Your task to perform on an android device: refresh tabs in the chrome app Image 0: 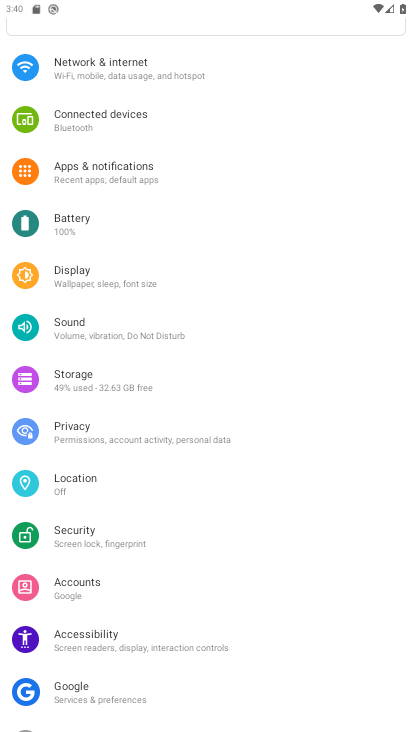
Step 0: press home button
Your task to perform on an android device: refresh tabs in the chrome app Image 1: 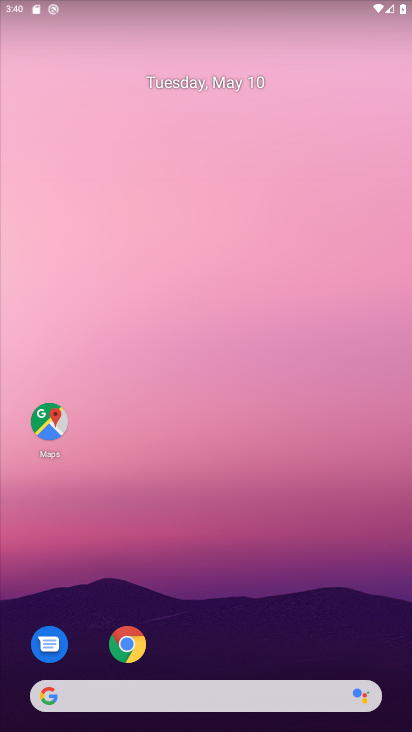
Step 1: click (124, 639)
Your task to perform on an android device: refresh tabs in the chrome app Image 2: 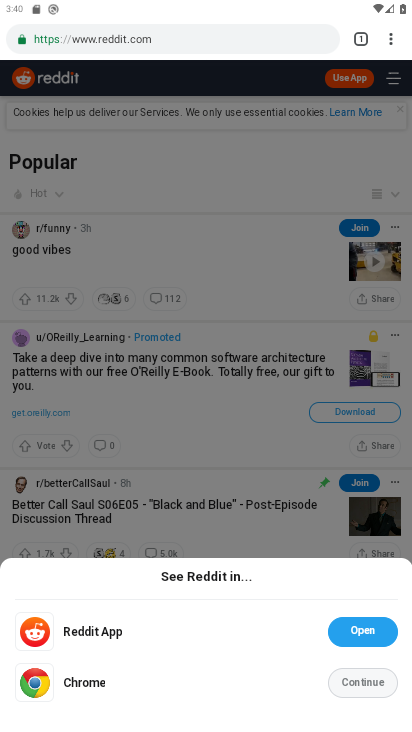
Step 2: click (371, 679)
Your task to perform on an android device: refresh tabs in the chrome app Image 3: 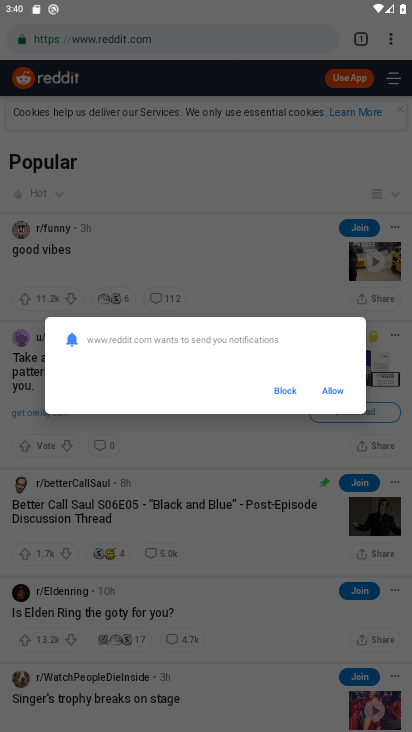
Step 3: click (329, 384)
Your task to perform on an android device: refresh tabs in the chrome app Image 4: 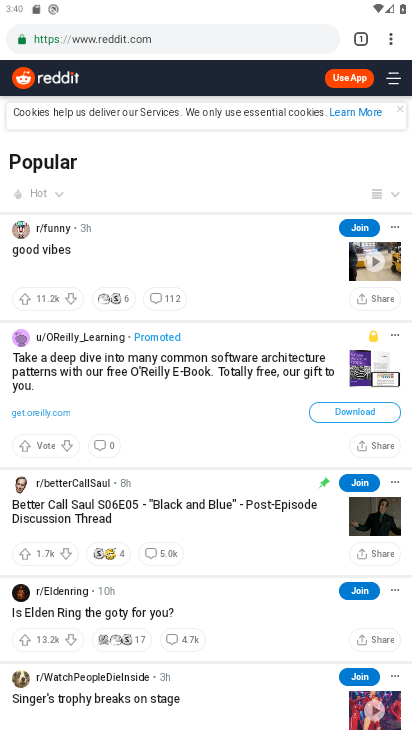
Step 4: click (388, 35)
Your task to perform on an android device: refresh tabs in the chrome app Image 5: 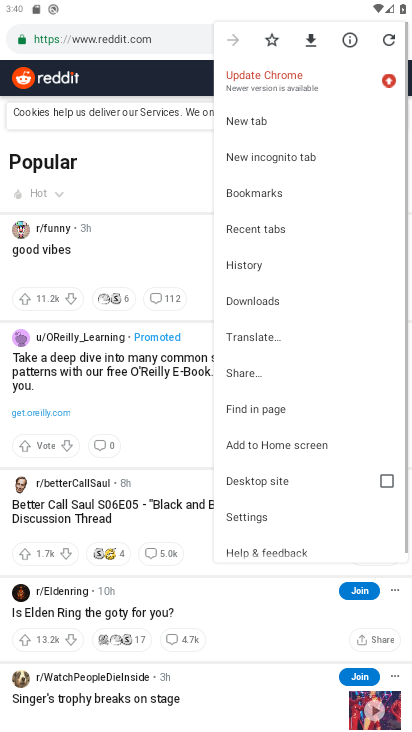
Step 5: click (388, 36)
Your task to perform on an android device: refresh tabs in the chrome app Image 6: 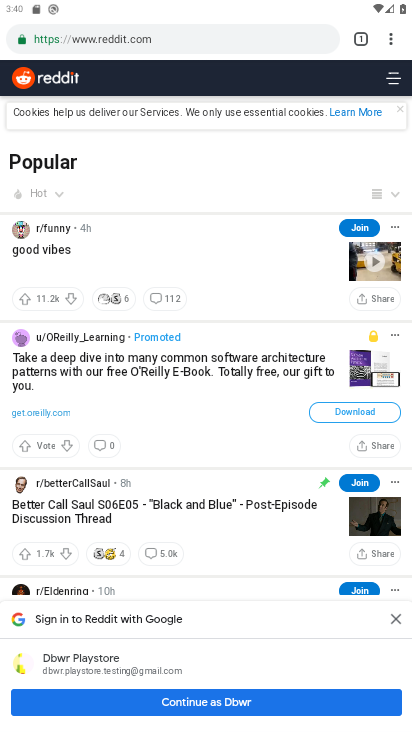
Step 6: task complete